Your task to perform on an android device: Open calendar and show me the fourth week of next month Image 0: 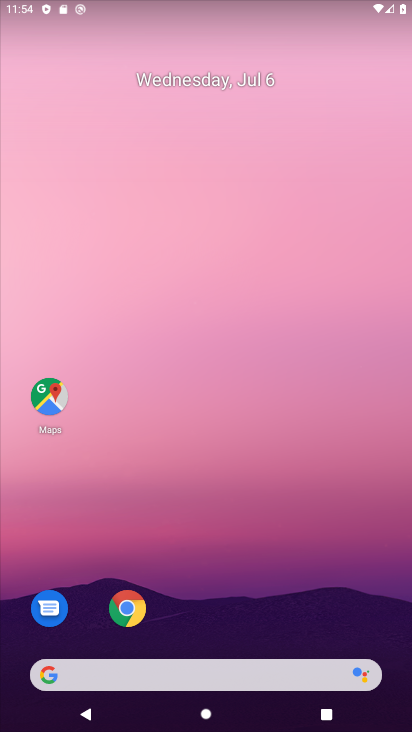
Step 0: drag from (250, 667) to (363, 20)
Your task to perform on an android device: Open calendar and show me the fourth week of next month Image 1: 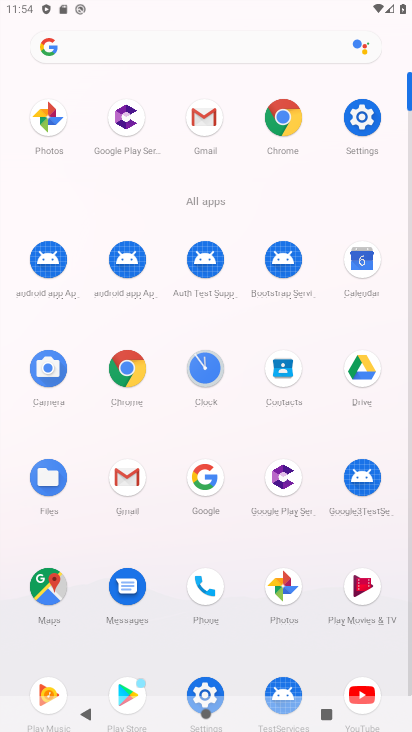
Step 1: click (375, 262)
Your task to perform on an android device: Open calendar and show me the fourth week of next month Image 2: 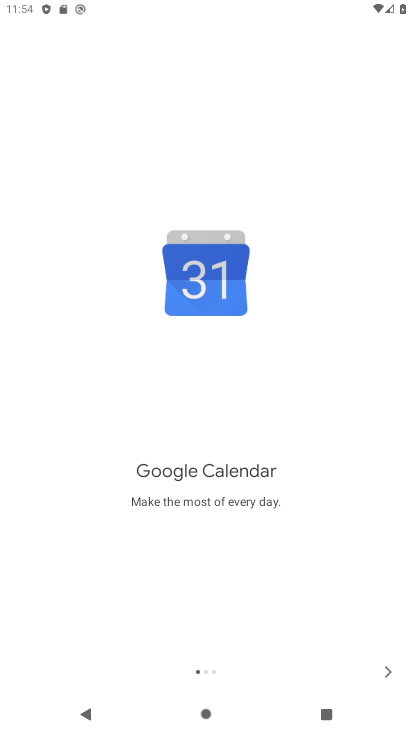
Step 2: click (402, 665)
Your task to perform on an android device: Open calendar and show me the fourth week of next month Image 3: 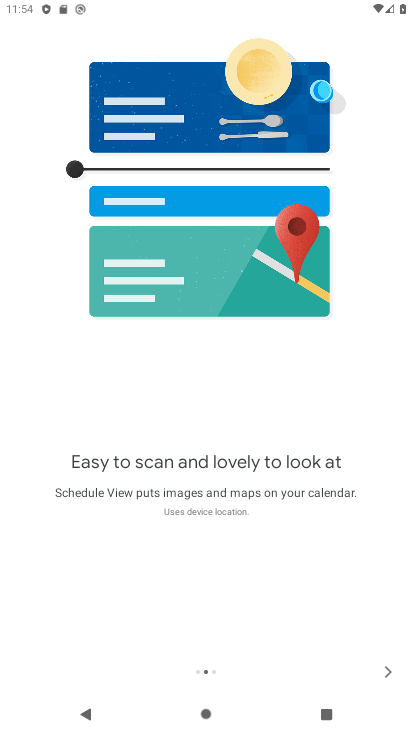
Step 3: click (395, 670)
Your task to perform on an android device: Open calendar and show me the fourth week of next month Image 4: 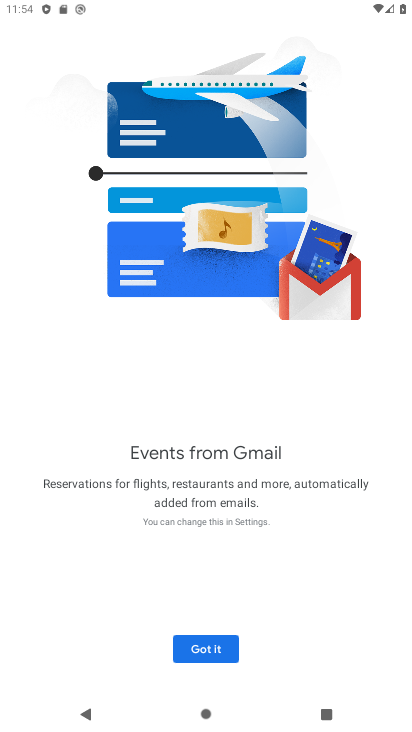
Step 4: click (183, 647)
Your task to perform on an android device: Open calendar and show me the fourth week of next month Image 5: 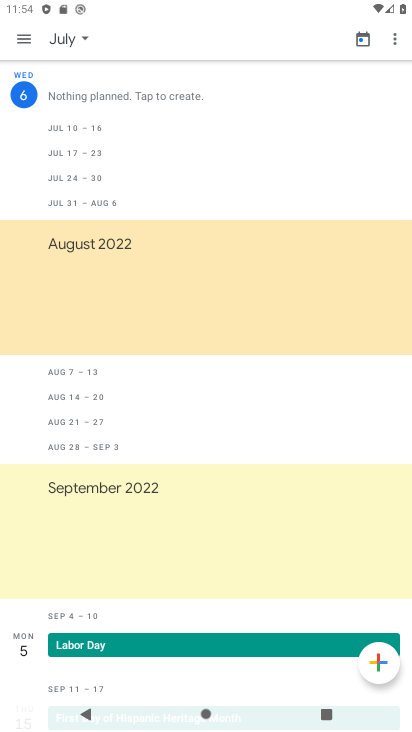
Step 5: click (86, 34)
Your task to perform on an android device: Open calendar and show me the fourth week of next month Image 6: 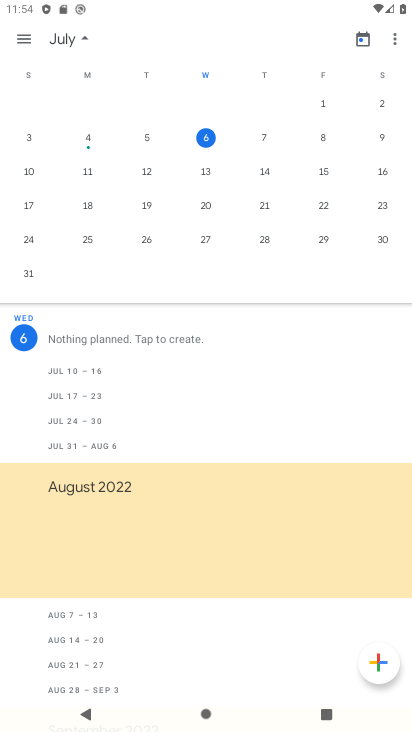
Step 6: drag from (357, 188) to (57, 183)
Your task to perform on an android device: Open calendar and show me the fourth week of next month Image 7: 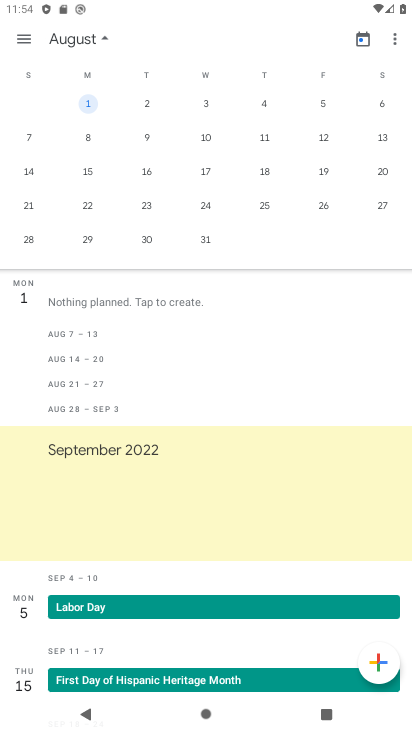
Step 7: click (209, 204)
Your task to perform on an android device: Open calendar and show me the fourth week of next month Image 8: 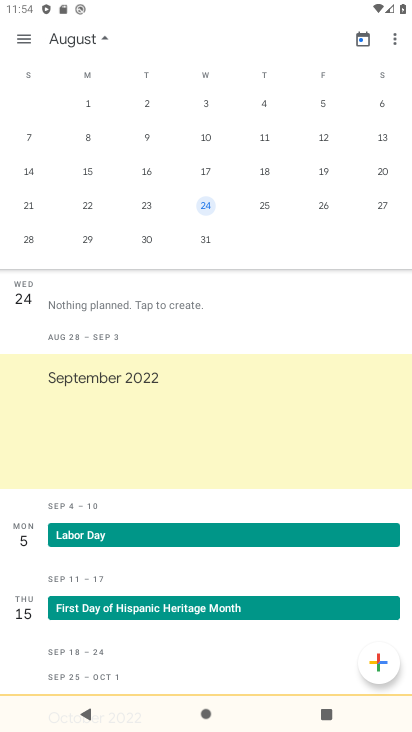
Step 8: click (27, 38)
Your task to perform on an android device: Open calendar and show me the fourth week of next month Image 9: 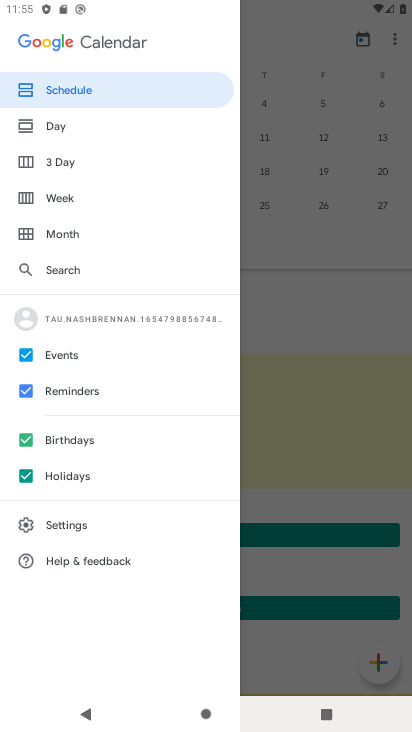
Step 9: click (61, 192)
Your task to perform on an android device: Open calendar and show me the fourth week of next month Image 10: 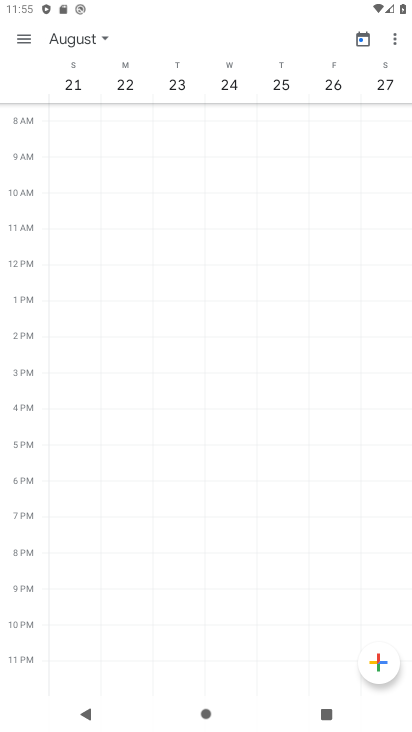
Step 10: task complete